Your task to perform on an android device: change notifications settings Image 0: 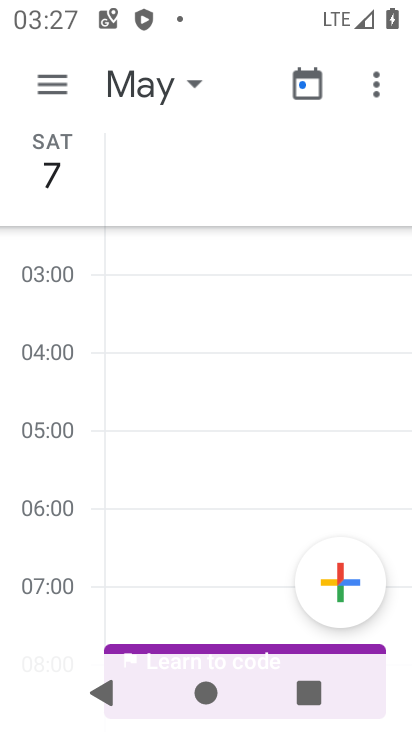
Step 0: press home button
Your task to perform on an android device: change notifications settings Image 1: 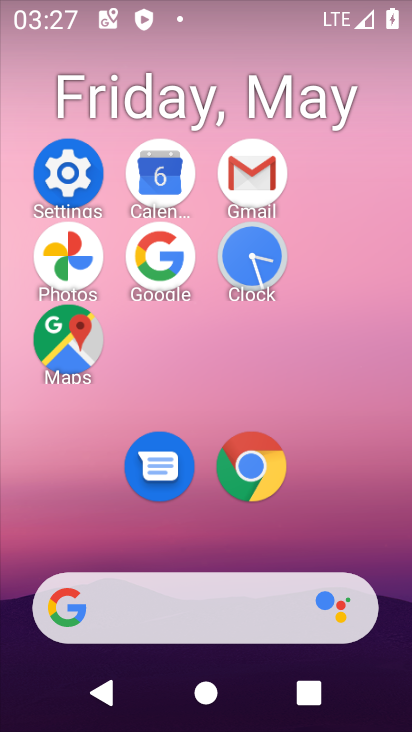
Step 1: click (84, 174)
Your task to perform on an android device: change notifications settings Image 2: 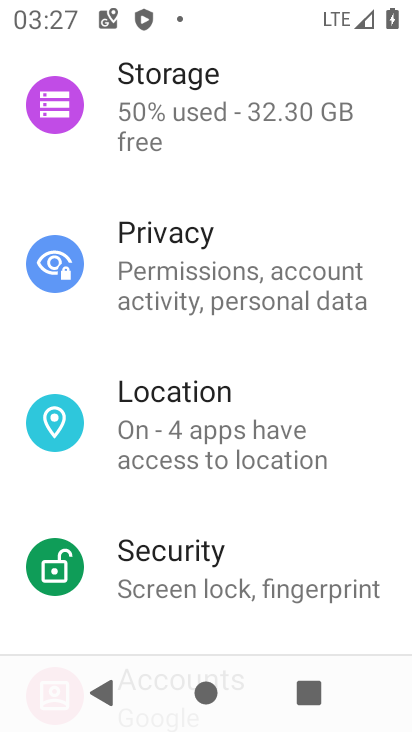
Step 2: drag from (249, 212) to (364, 628)
Your task to perform on an android device: change notifications settings Image 3: 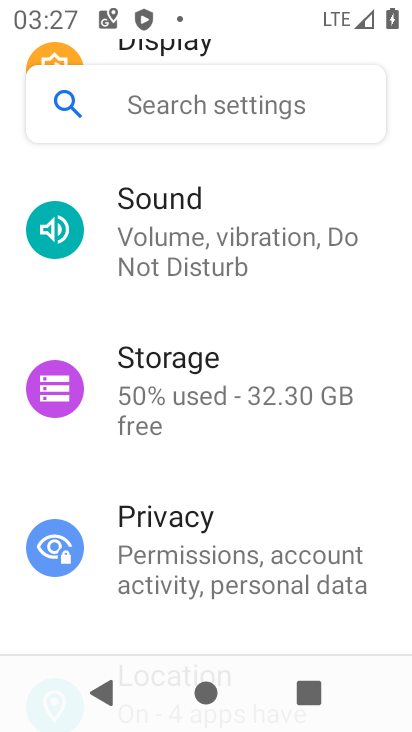
Step 3: drag from (269, 274) to (330, 661)
Your task to perform on an android device: change notifications settings Image 4: 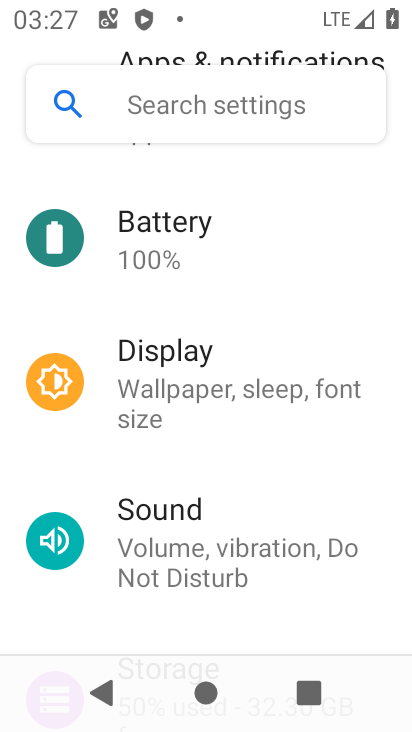
Step 4: drag from (275, 230) to (339, 515)
Your task to perform on an android device: change notifications settings Image 5: 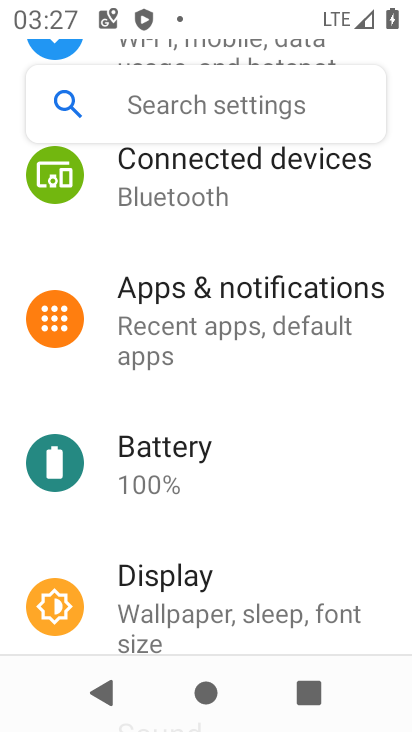
Step 5: click (288, 312)
Your task to perform on an android device: change notifications settings Image 6: 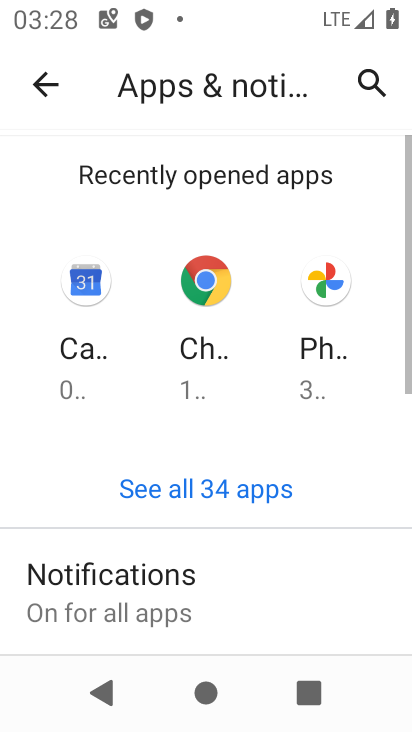
Step 6: click (251, 569)
Your task to perform on an android device: change notifications settings Image 7: 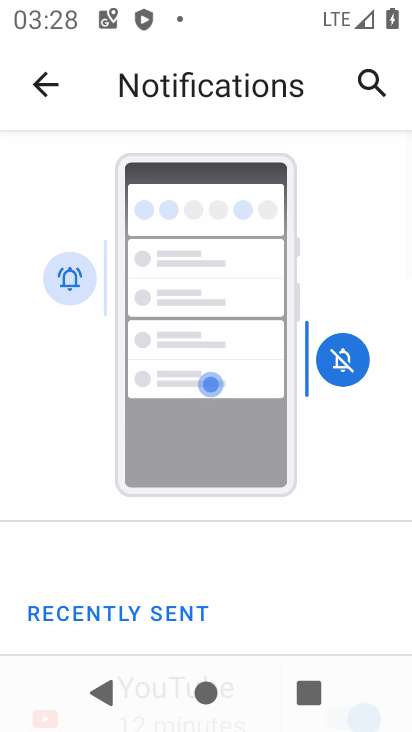
Step 7: drag from (293, 522) to (316, 79)
Your task to perform on an android device: change notifications settings Image 8: 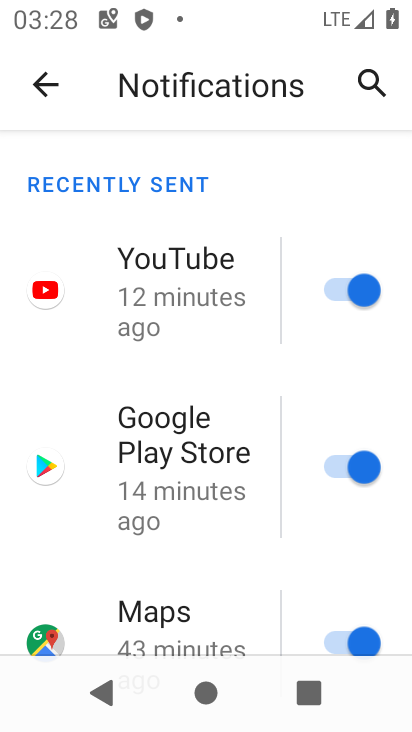
Step 8: drag from (265, 519) to (283, 40)
Your task to perform on an android device: change notifications settings Image 9: 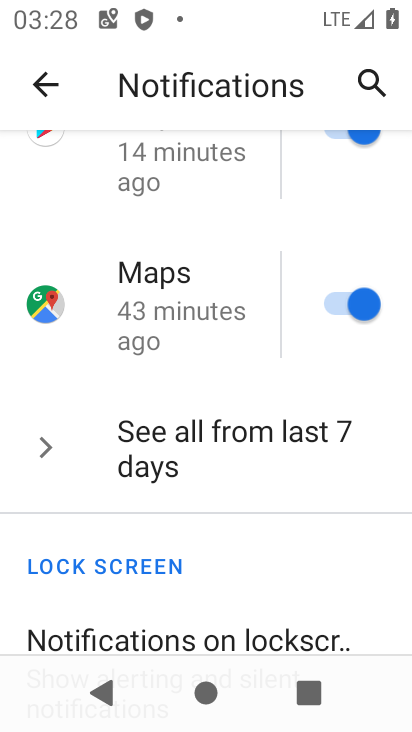
Step 9: drag from (228, 587) to (263, 91)
Your task to perform on an android device: change notifications settings Image 10: 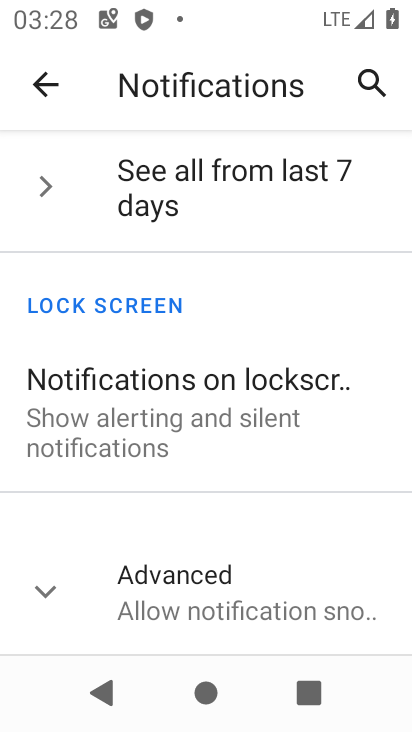
Step 10: click (289, 556)
Your task to perform on an android device: change notifications settings Image 11: 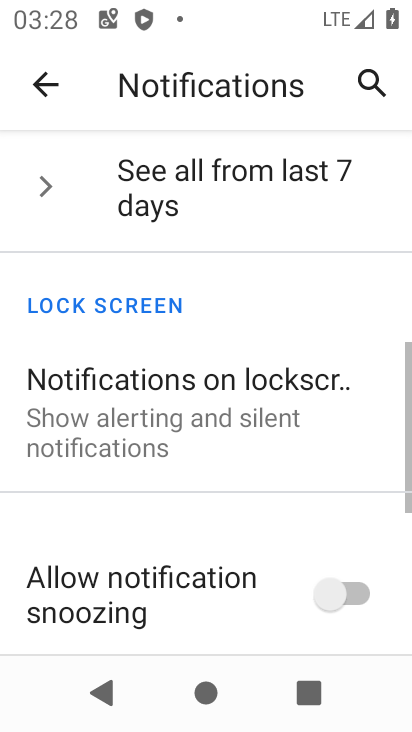
Step 11: drag from (328, 560) to (365, 114)
Your task to perform on an android device: change notifications settings Image 12: 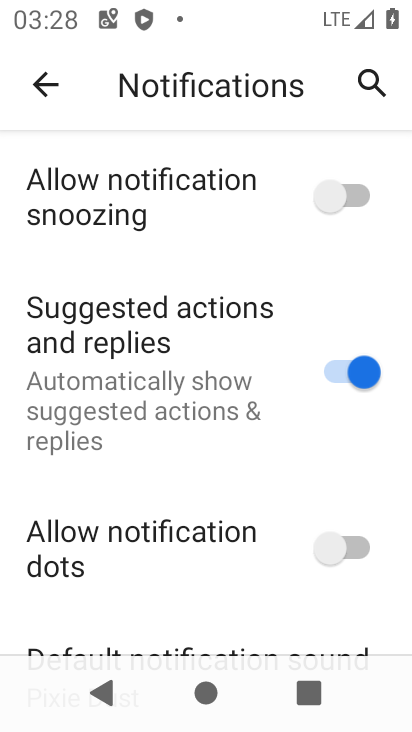
Step 12: click (349, 187)
Your task to perform on an android device: change notifications settings Image 13: 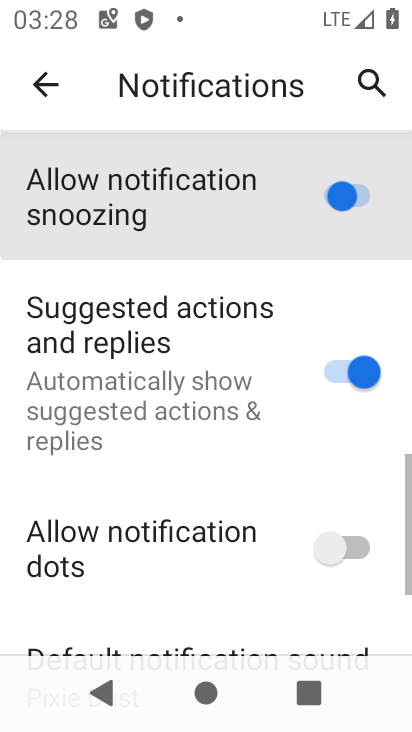
Step 13: click (358, 365)
Your task to perform on an android device: change notifications settings Image 14: 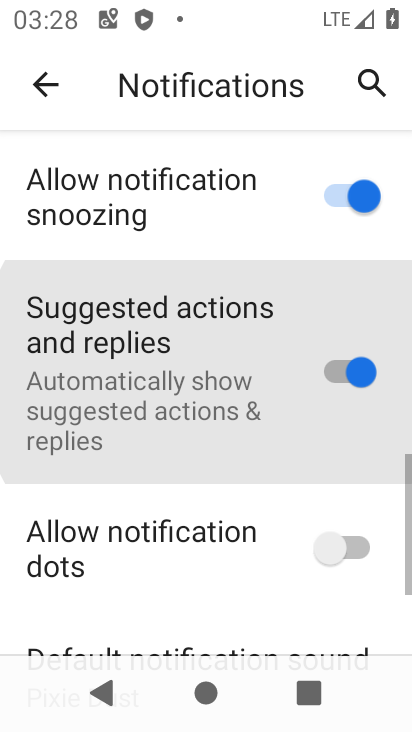
Step 14: click (350, 546)
Your task to perform on an android device: change notifications settings Image 15: 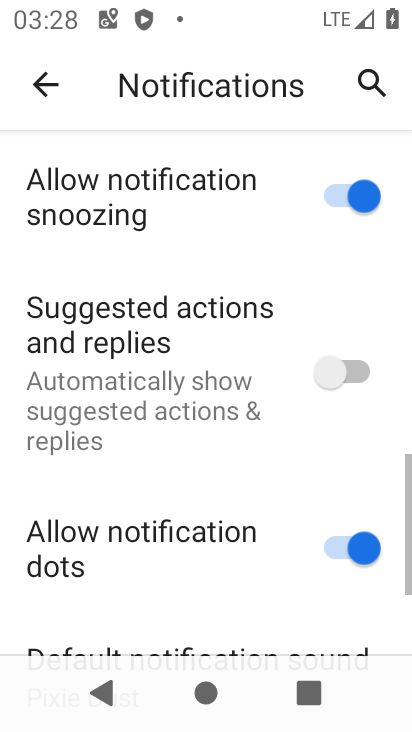
Step 15: task complete